Your task to perform on an android device: Search for vegetarian restaurants on Maps Image 0: 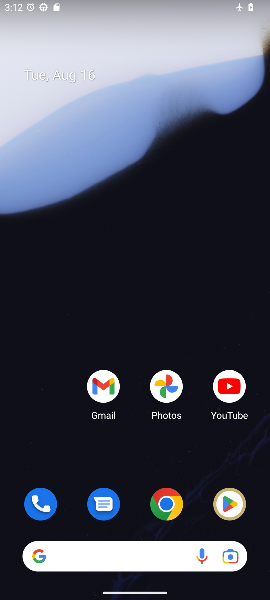
Step 0: drag from (136, 490) to (99, 134)
Your task to perform on an android device: Search for vegetarian restaurants on Maps Image 1: 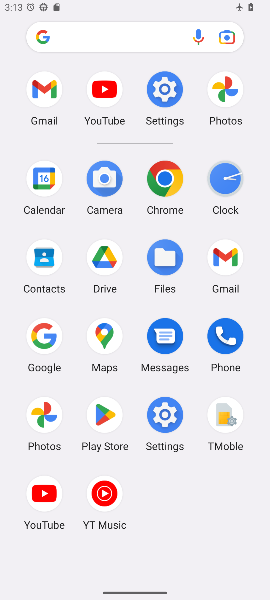
Step 1: click (103, 331)
Your task to perform on an android device: Search for vegetarian restaurants on Maps Image 2: 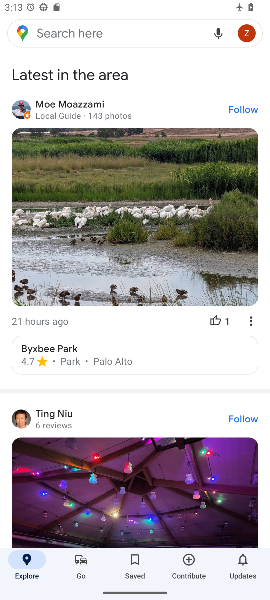
Step 2: click (88, 23)
Your task to perform on an android device: Search for vegetarian restaurants on Maps Image 3: 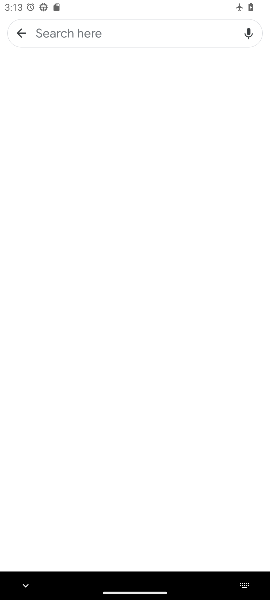
Step 3: type "vegetarian "
Your task to perform on an android device: Search for vegetarian restaurants on Maps Image 4: 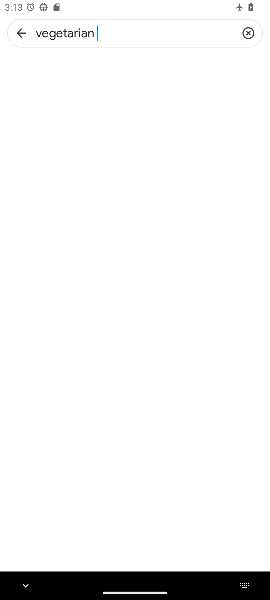
Step 4: task complete